Your task to perform on an android device: Open battery settings Image 0: 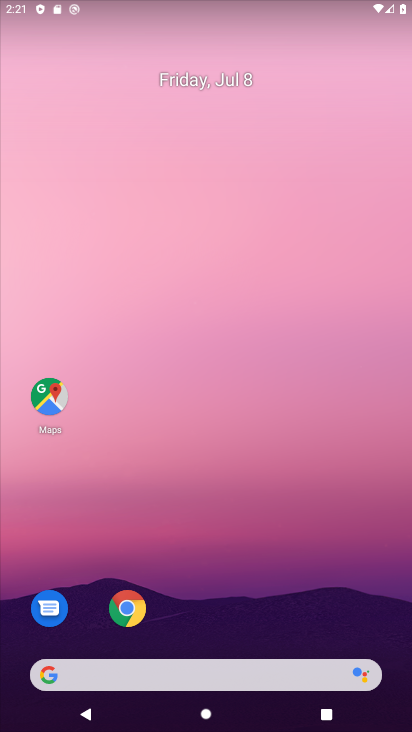
Step 0: drag from (216, 613) to (264, 100)
Your task to perform on an android device: Open battery settings Image 1: 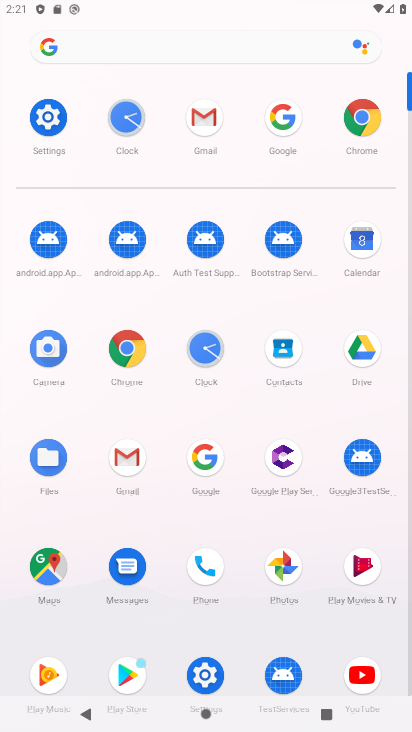
Step 1: click (45, 118)
Your task to perform on an android device: Open battery settings Image 2: 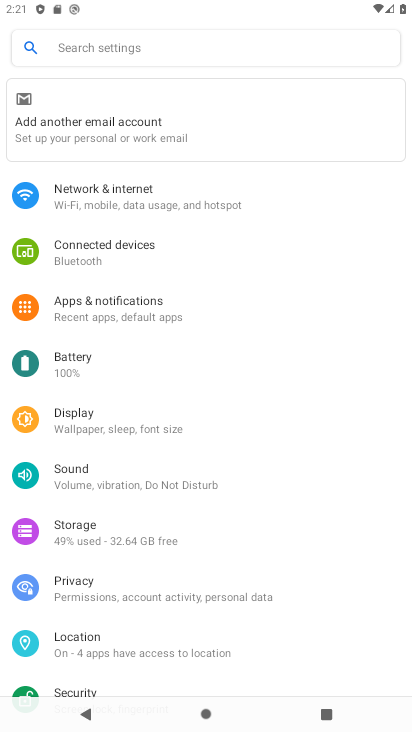
Step 2: drag from (120, 273) to (143, 111)
Your task to perform on an android device: Open battery settings Image 3: 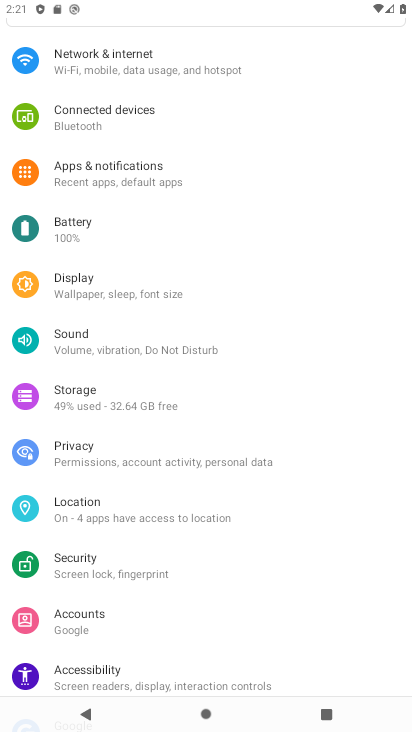
Step 3: click (75, 232)
Your task to perform on an android device: Open battery settings Image 4: 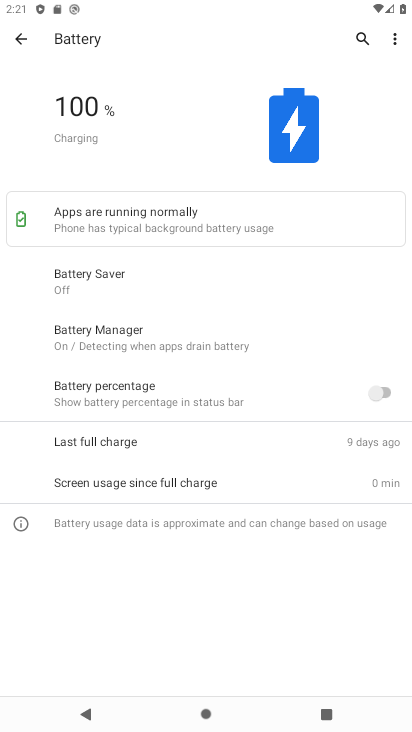
Step 4: task complete